Your task to perform on an android device: make emails show in primary in the gmail app Image 0: 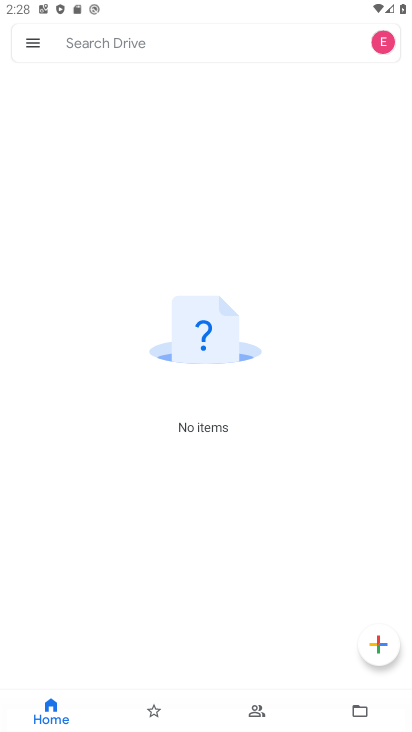
Step 0: press home button
Your task to perform on an android device: make emails show in primary in the gmail app Image 1: 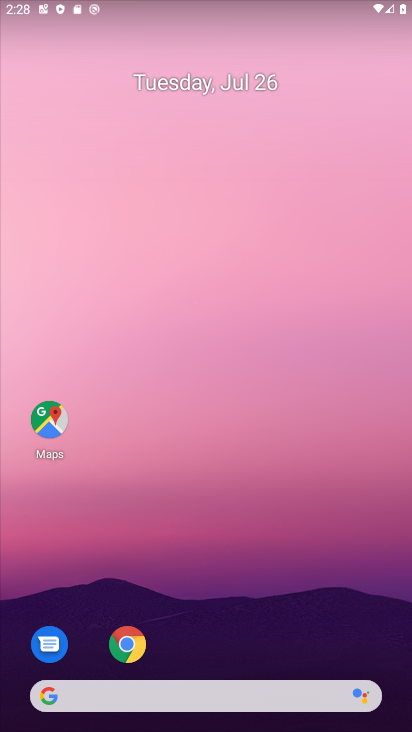
Step 1: drag from (293, 399) to (310, 93)
Your task to perform on an android device: make emails show in primary in the gmail app Image 2: 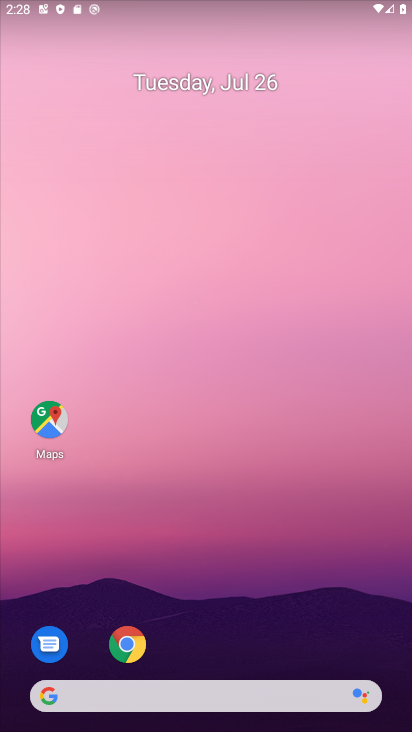
Step 2: drag from (254, 569) to (311, 1)
Your task to perform on an android device: make emails show in primary in the gmail app Image 3: 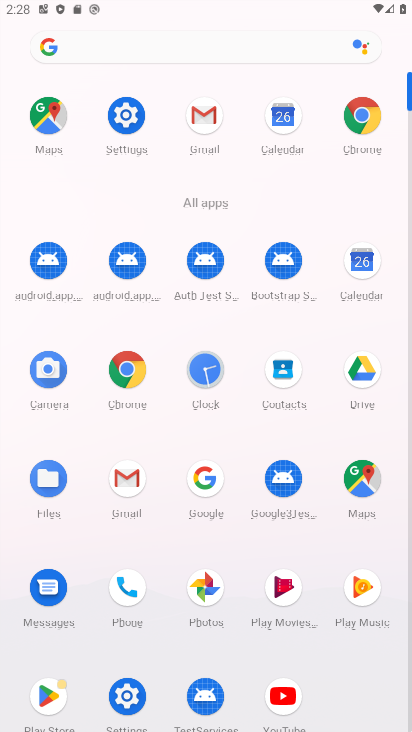
Step 3: click (209, 113)
Your task to perform on an android device: make emails show in primary in the gmail app Image 4: 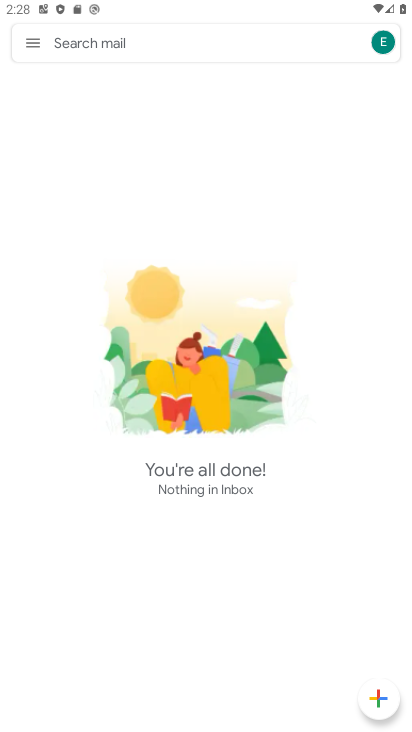
Step 4: click (33, 47)
Your task to perform on an android device: make emails show in primary in the gmail app Image 5: 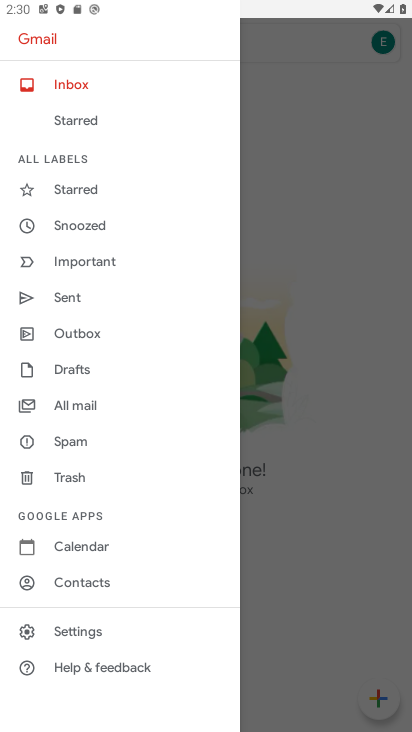
Step 5: click (81, 638)
Your task to perform on an android device: make emails show in primary in the gmail app Image 6: 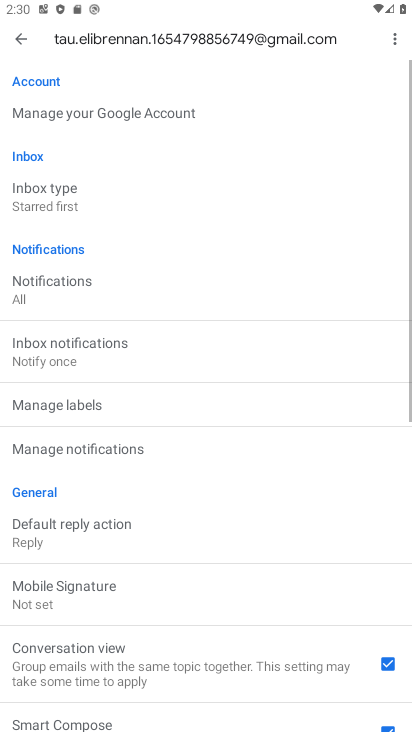
Step 6: click (49, 192)
Your task to perform on an android device: make emails show in primary in the gmail app Image 7: 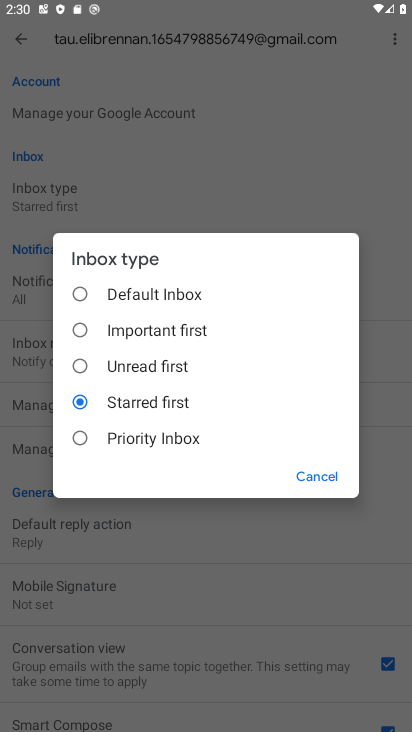
Step 7: click (86, 294)
Your task to perform on an android device: make emails show in primary in the gmail app Image 8: 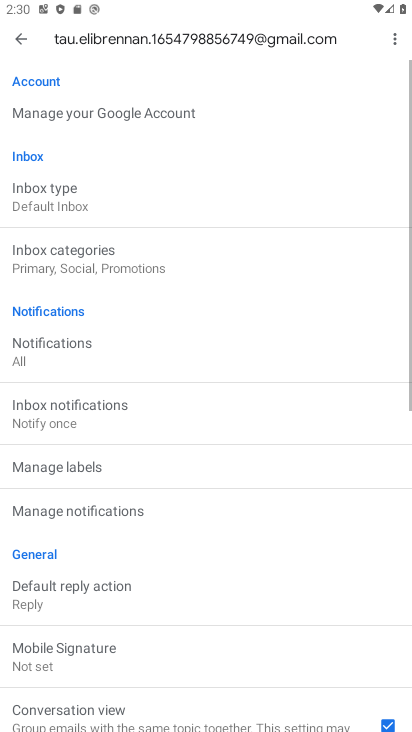
Step 8: click (50, 264)
Your task to perform on an android device: make emails show in primary in the gmail app Image 9: 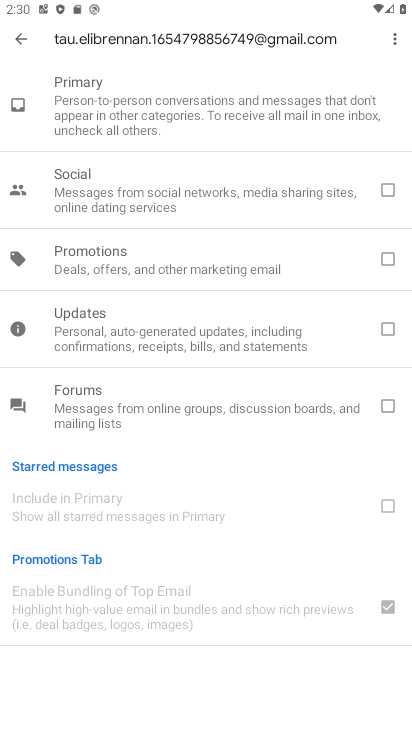
Step 9: task complete